Your task to perform on an android device: turn on data saver in the chrome app Image 0: 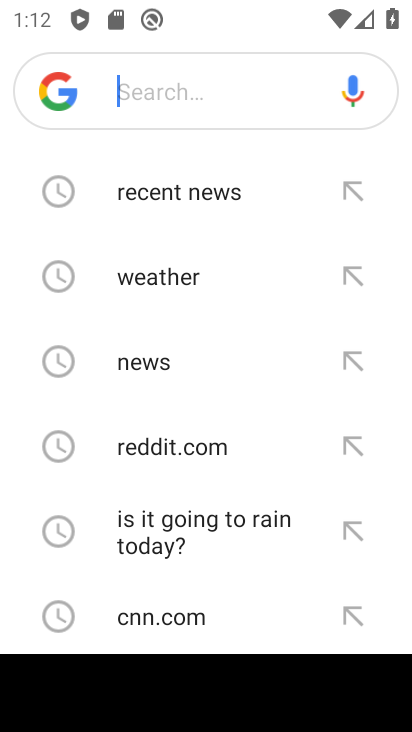
Step 0: press home button
Your task to perform on an android device: turn on data saver in the chrome app Image 1: 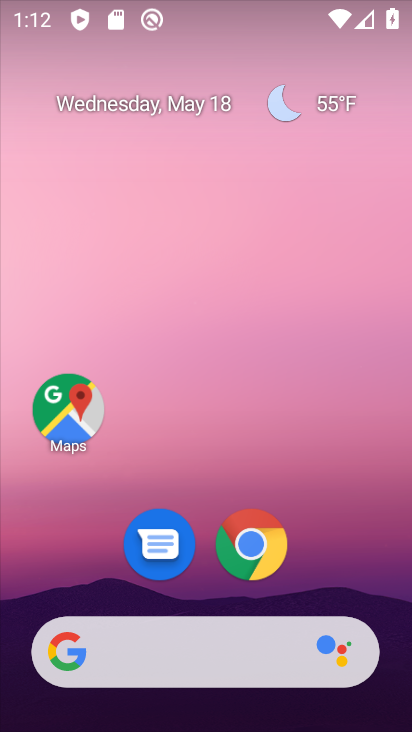
Step 1: click (260, 538)
Your task to perform on an android device: turn on data saver in the chrome app Image 2: 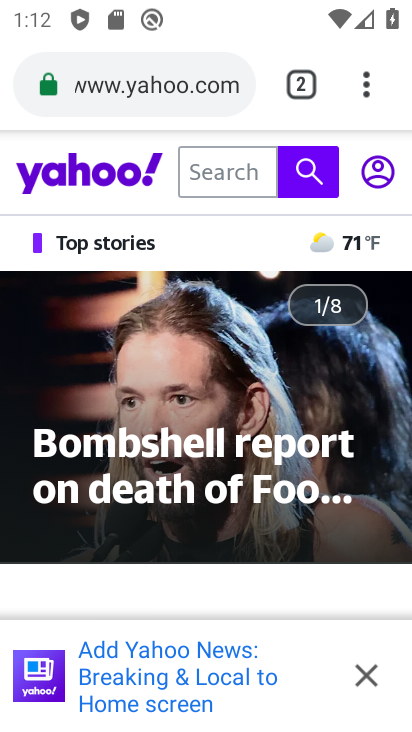
Step 2: click (377, 83)
Your task to perform on an android device: turn on data saver in the chrome app Image 3: 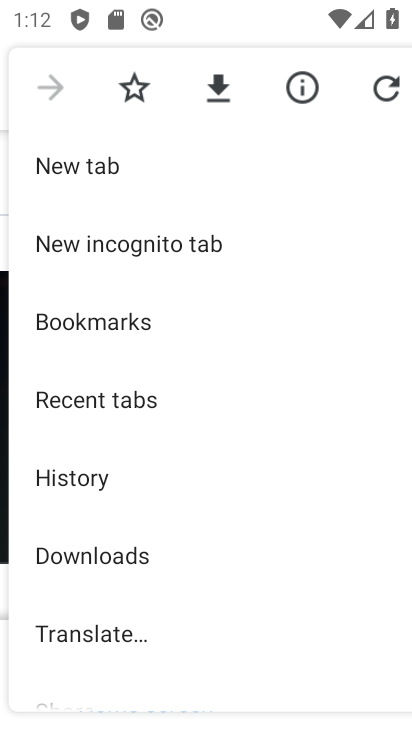
Step 3: click (193, 593)
Your task to perform on an android device: turn on data saver in the chrome app Image 4: 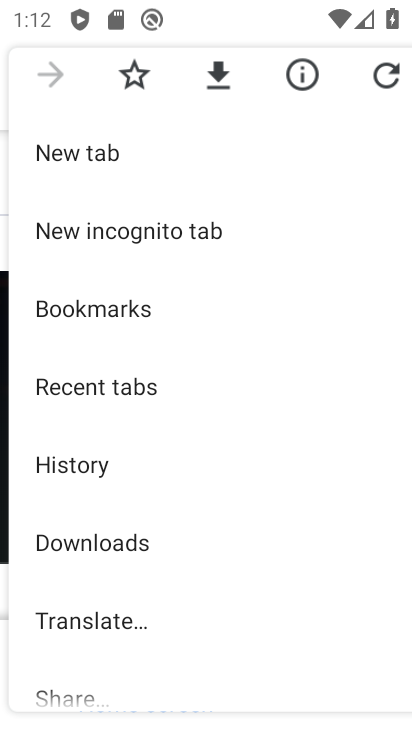
Step 4: drag from (206, 601) to (181, 446)
Your task to perform on an android device: turn on data saver in the chrome app Image 5: 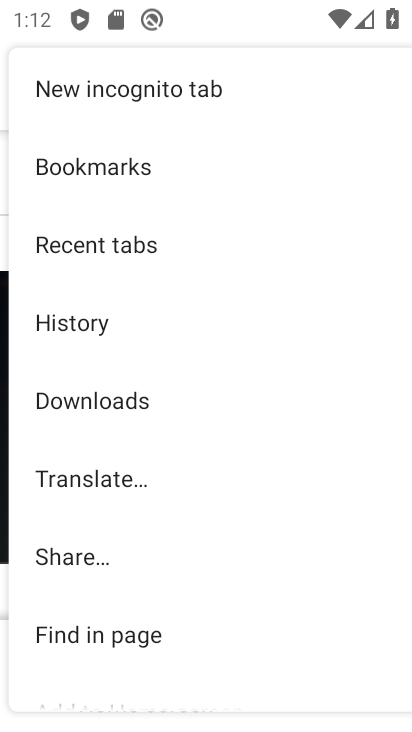
Step 5: drag from (207, 574) to (172, 354)
Your task to perform on an android device: turn on data saver in the chrome app Image 6: 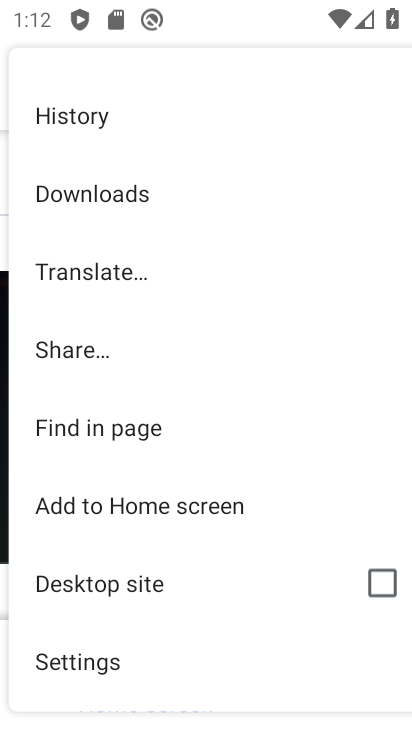
Step 6: click (101, 655)
Your task to perform on an android device: turn on data saver in the chrome app Image 7: 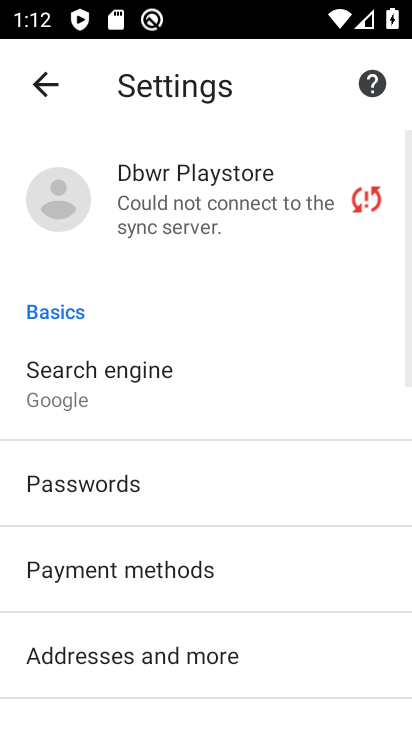
Step 7: drag from (318, 565) to (277, 324)
Your task to perform on an android device: turn on data saver in the chrome app Image 8: 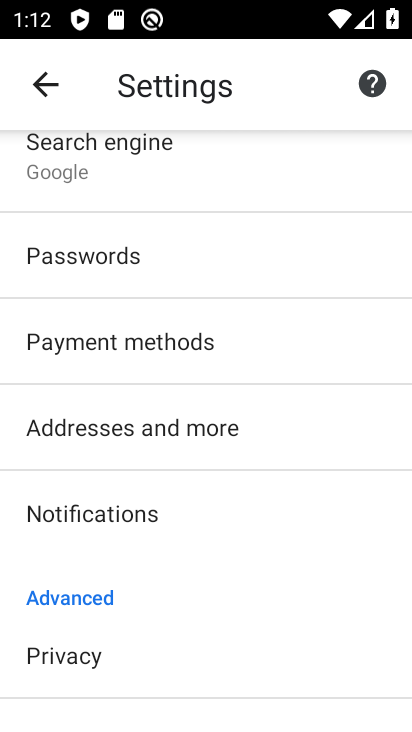
Step 8: drag from (196, 644) to (217, 509)
Your task to perform on an android device: turn on data saver in the chrome app Image 9: 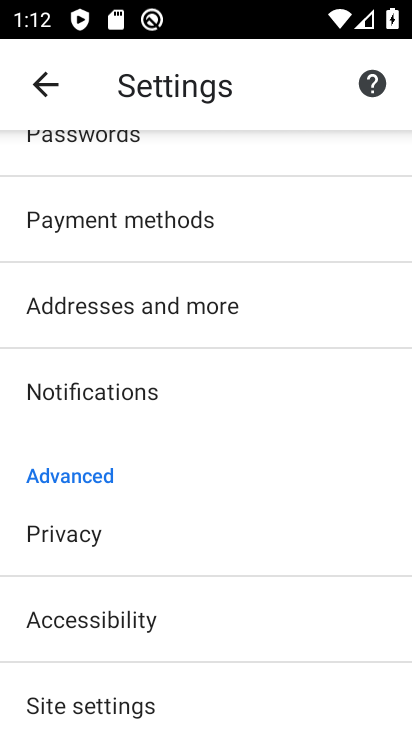
Step 9: drag from (216, 652) to (189, 379)
Your task to perform on an android device: turn on data saver in the chrome app Image 10: 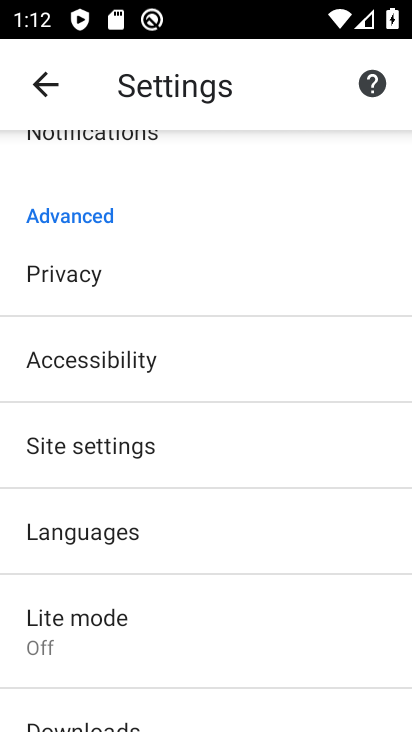
Step 10: click (147, 639)
Your task to perform on an android device: turn on data saver in the chrome app Image 11: 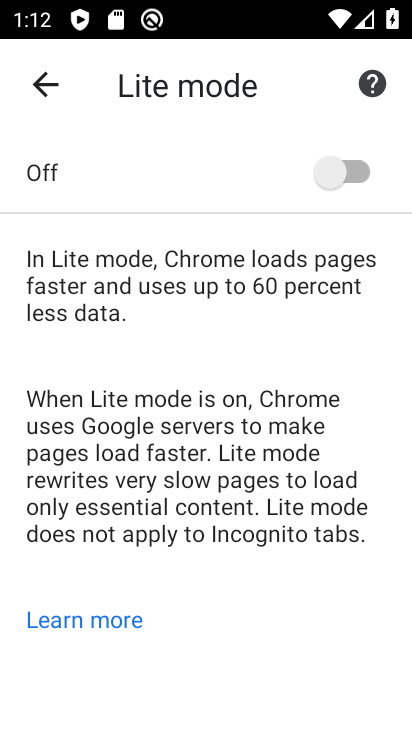
Step 11: click (362, 171)
Your task to perform on an android device: turn on data saver in the chrome app Image 12: 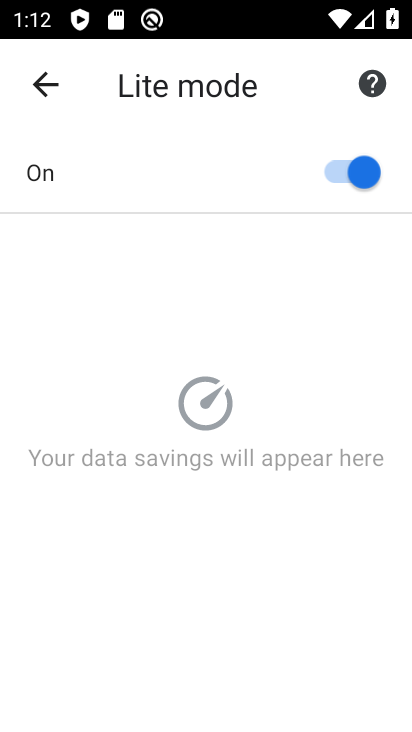
Step 12: task complete